Your task to perform on an android device: Open Yahoo.com Image 0: 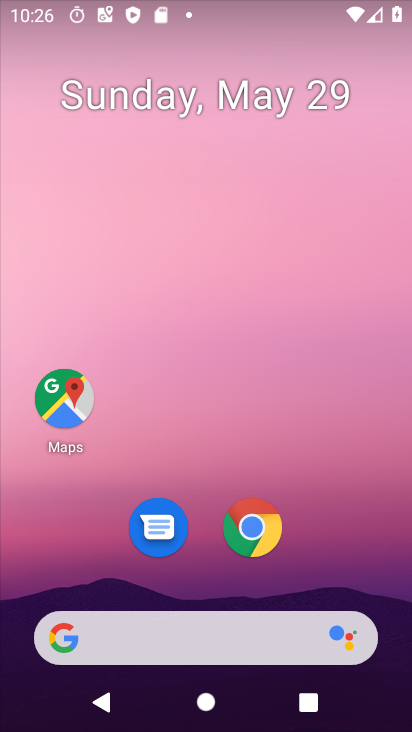
Step 0: click (252, 522)
Your task to perform on an android device: Open Yahoo.com Image 1: 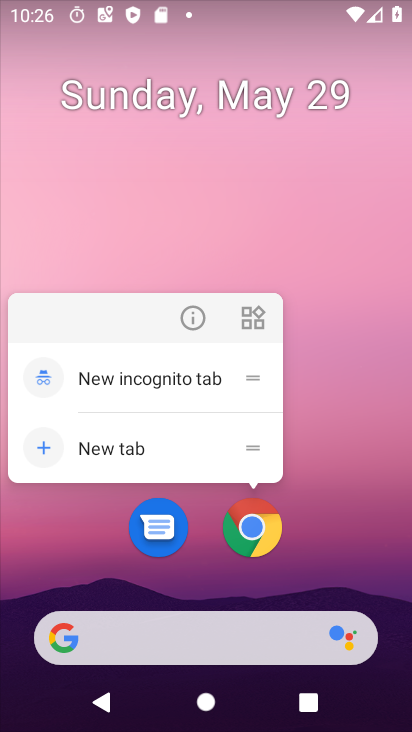
Step 1: click (256, 522)
Your task to perform on an android device: Open Yahoo.com Image 2: 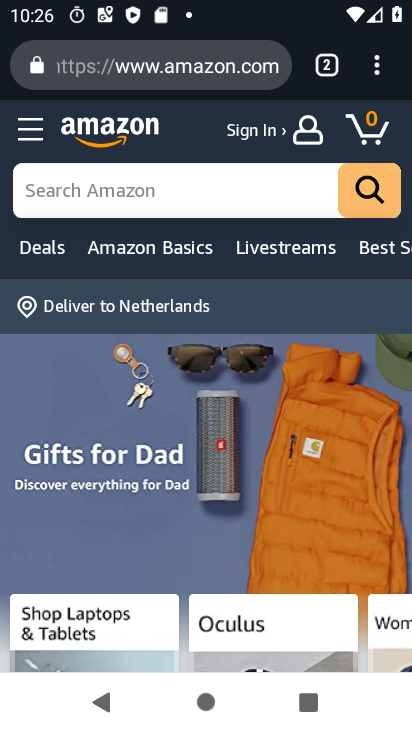
Step 2: click (174, 69)
Your task to perform on an android device: Open Yahoo.com Image 3: 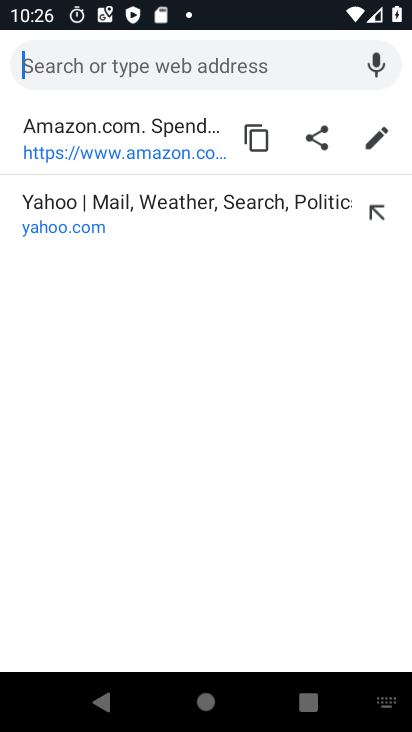
Step 3: click (77, 228)
Your task to perform on an android device: Open Yahoo.com Image 4: 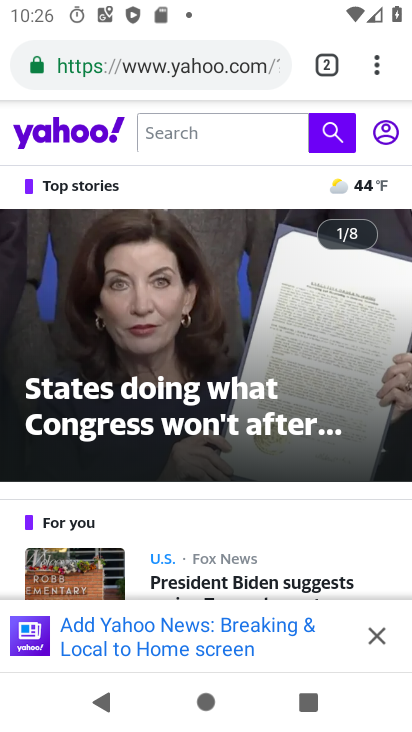
Step 4: task complete